Your task to perform on an android device: Open Google Image 0: 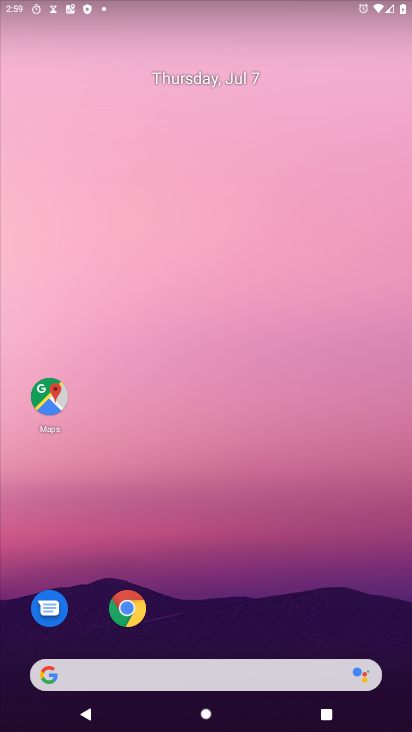
Step 0: drag from (245, 727) to (216, 165)
Your task to perform on an android device: Open Google Image 1: 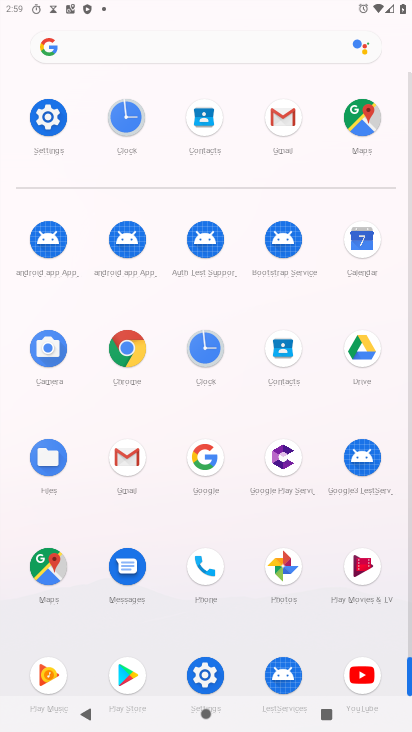
Step 1: click (207, 459)
Your task to perform on an android device: Open Google Image 2: 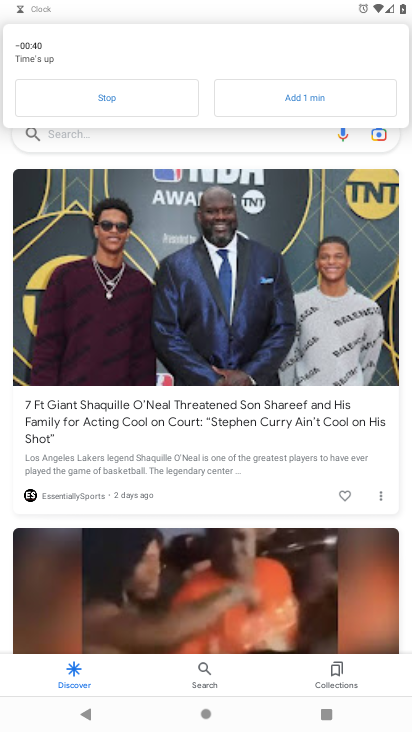
Step 2: task complete